Your task to perform on an android device: Clear the cart on ebay.com. Search for acer predator on ebay.com, select the first entry, add it to the cart, then select checkout. Image 0: 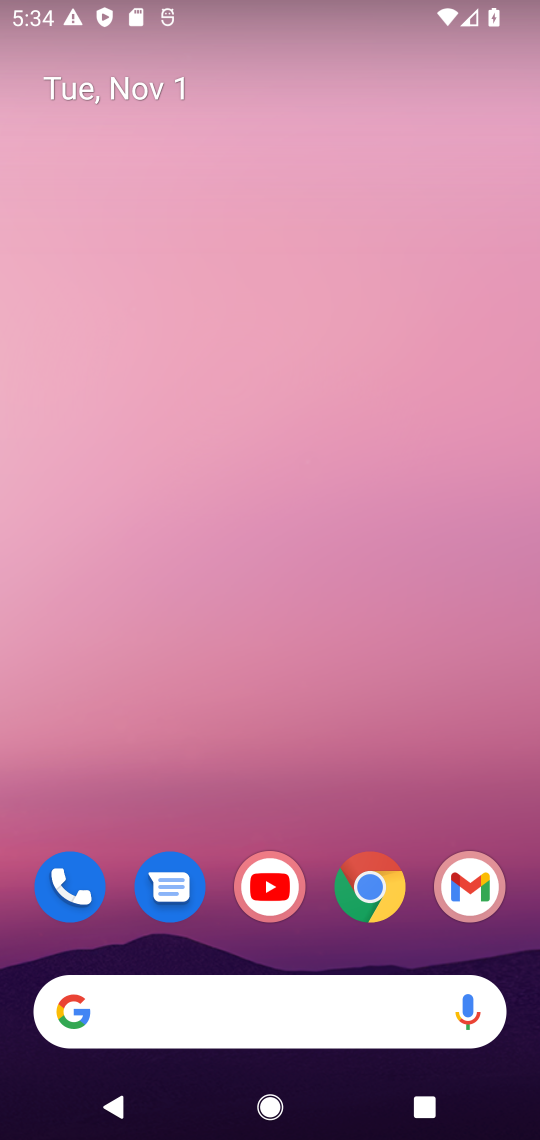
Step 0: press home button
Your task to perform on an android device: Clear the cart on ebay.com. Search for acer predator on ebay.com, select the first entry, add it to the cart, then select checkout. Image 1: 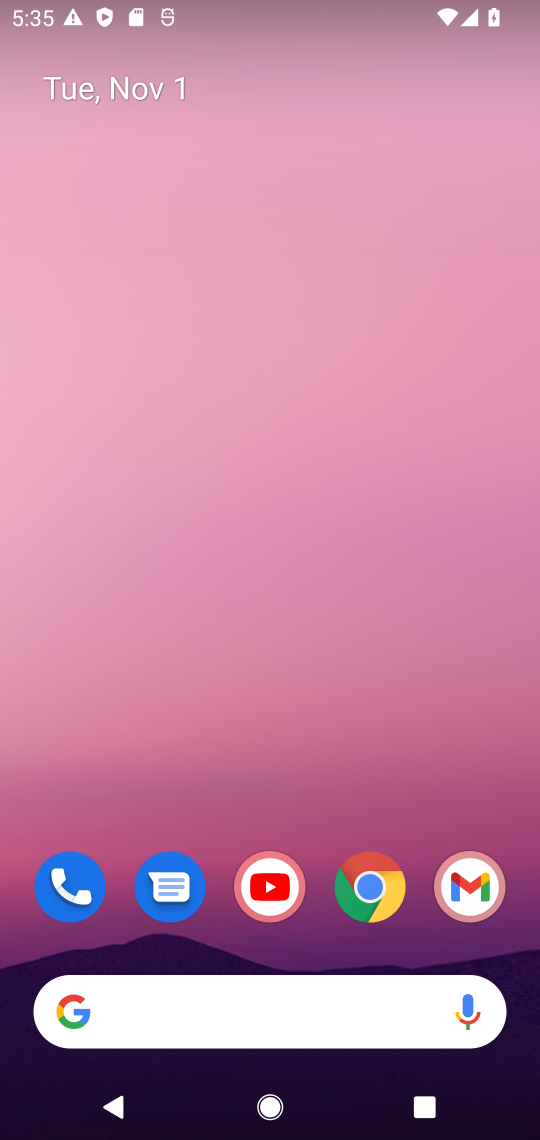
Step 1: drag from (312, 849) to (306, 54)
Your task to perform on an android device: Clear the cart on ebay.com. Search for acer predator on ebay.com, select the first entry, add it to the cart, then select checkout. Image 2: 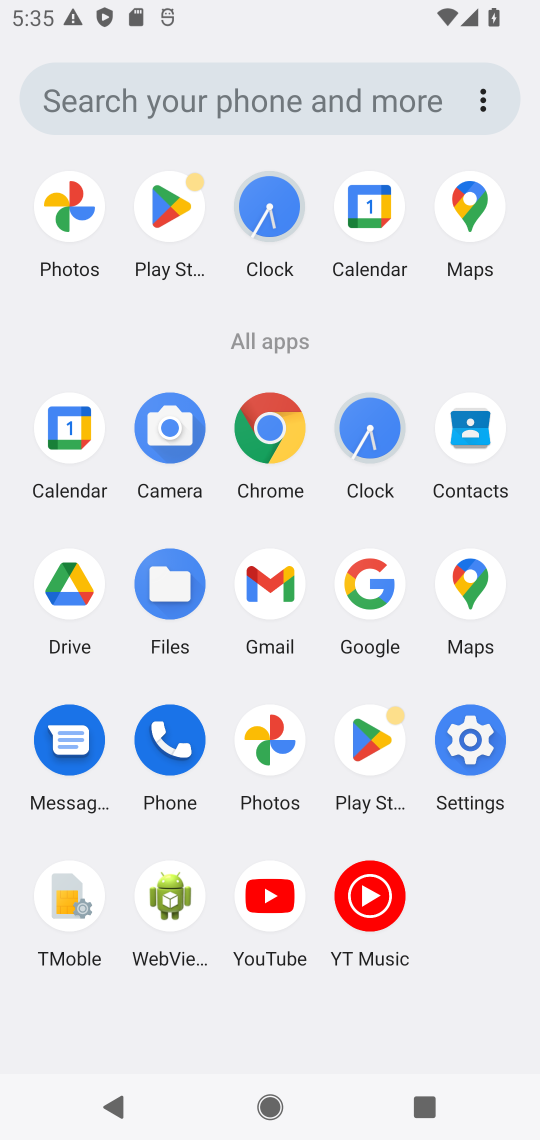
Step 2: click (266, 419)
Your task to perform on an android device: Clear the cart on ebay.com. Search for acer predator on ebay.com, select the first entry, add it to the cart, then select checkout. Image 3: 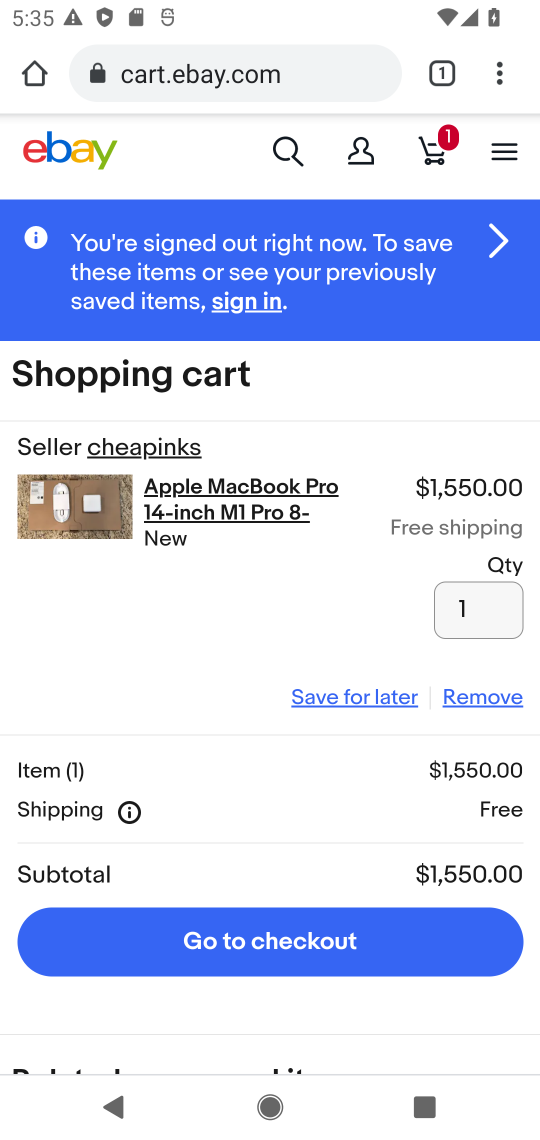
Step 3: click (279, 146)
Your task to perform on an android device: Clear the cart on ebay.com. Search for acer predator on ebay.com, select the first entry, add it to the cart, then select checkout. Image 4: 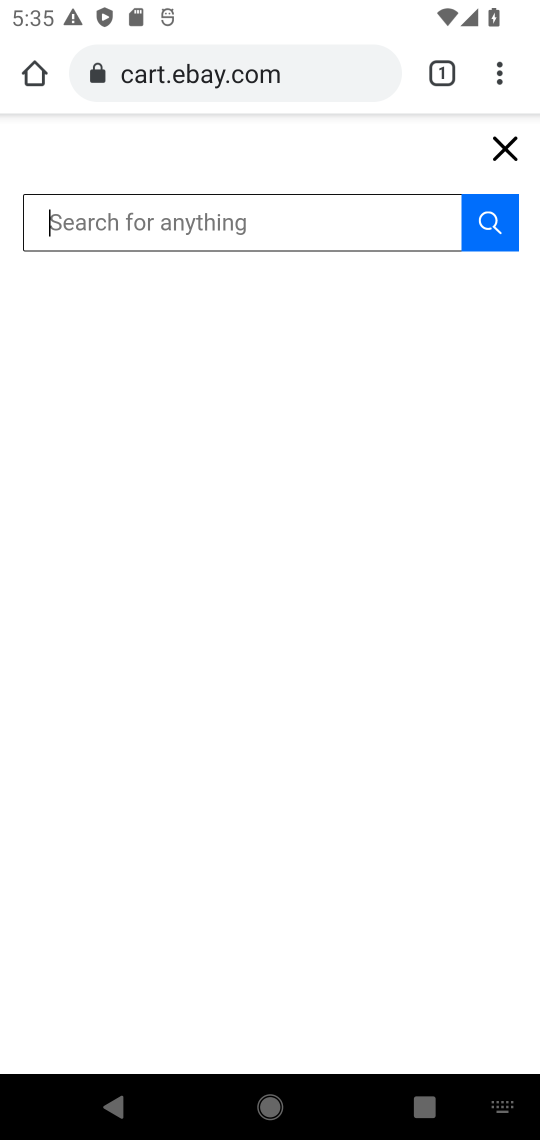
Step 4: type "acer predator"
Your task to perform on an android device: Clear the cart on ebay.com. Search for acer predator on ebay.com, select the first entry, add it to the cart, then select checkout. Image 5: 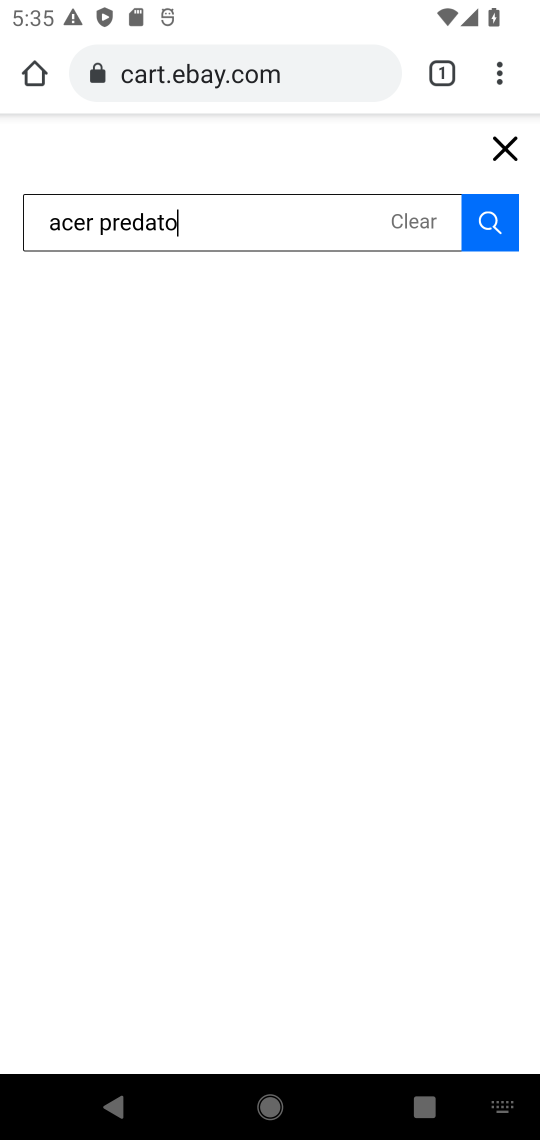
Step 5: type ""
Your task to perform on an android device: Clear the cart on ebay.com. Search for acer predator on ebay.com, select the first entry, add it to the cart, then select checkout. Image 6: 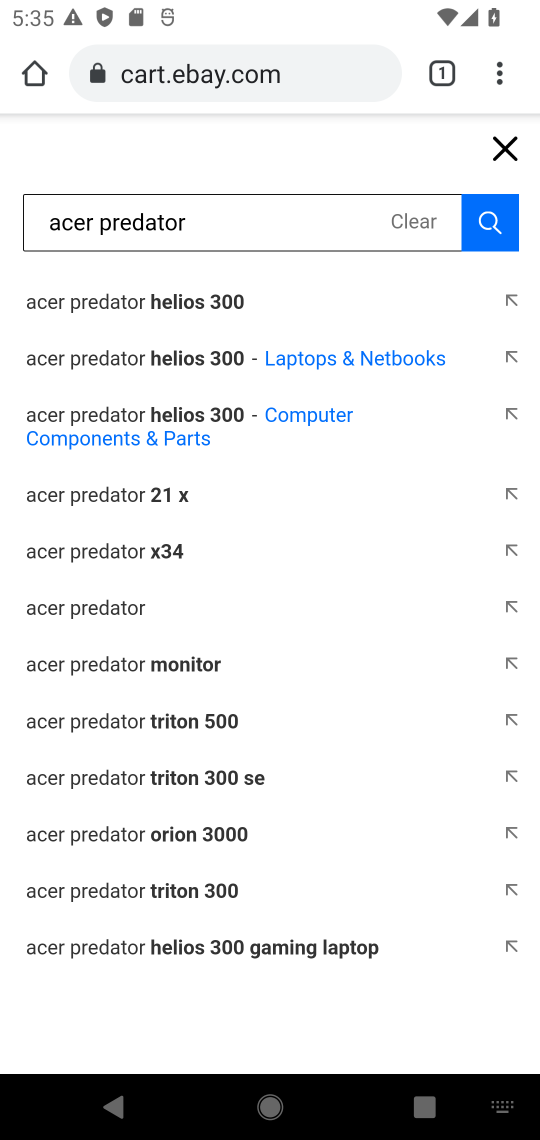
Step 6: click (241, 427)
Your task to perform on an android device: Clear the cart on ebay.com. Search for acer predator on ebay.com, select the first entry, add it to the cart, then select checkout. Image 7: 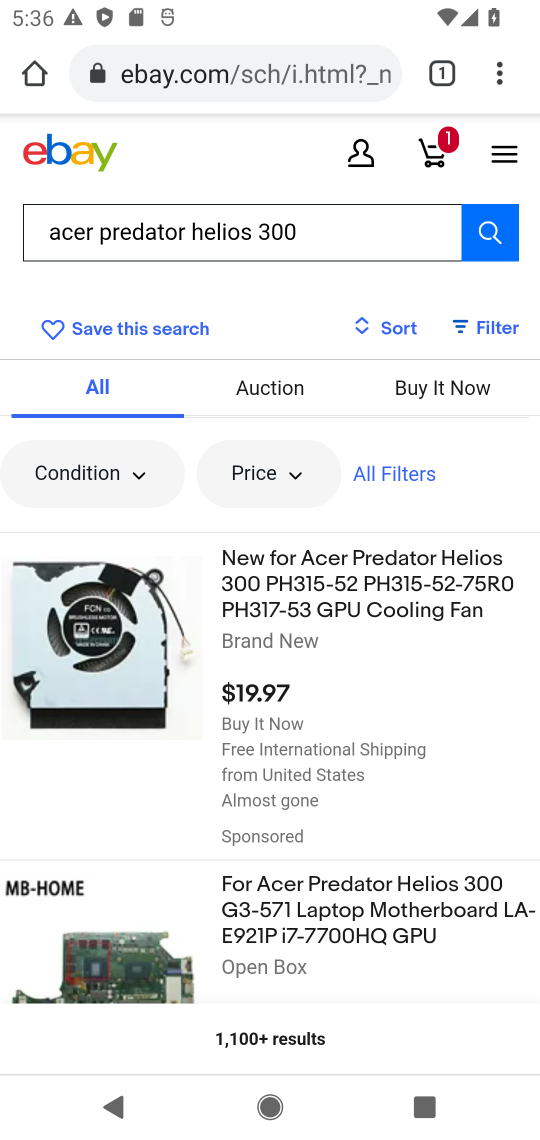
Step 7: click (326, 616)
Your task to perform on an android device: Clear the cart on ebay.com. Search for acer predator on ebay.com, select the first entry, add it to the cart, then select checkout. Image 8: 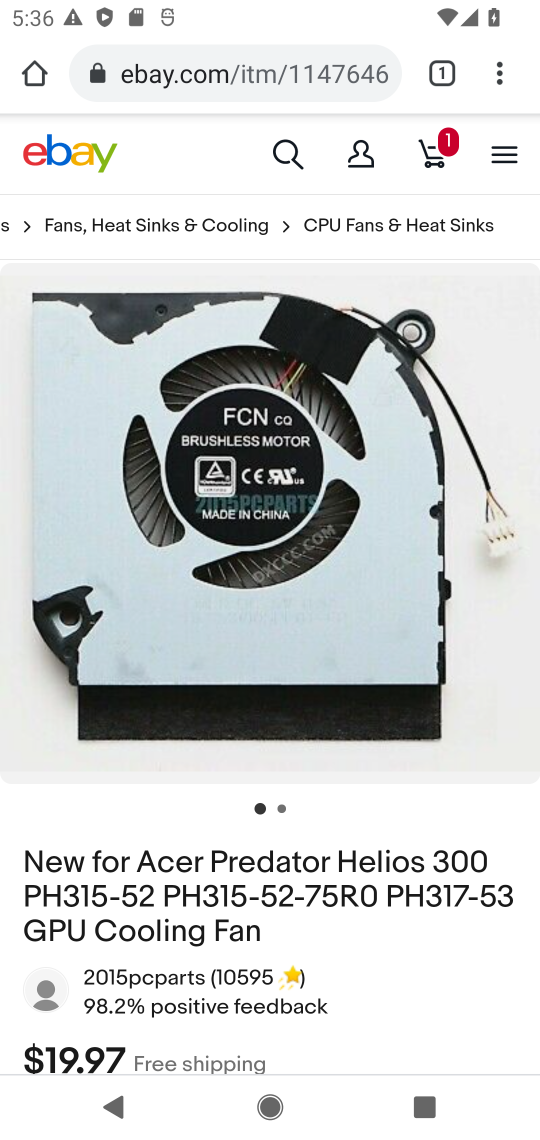
Step 8: drag from (336, 958) to (409, 412)
Your task to perform on an android device: Clear the cart on ebay.com. Search for acer predator on ebay.com, select the first entry, add it to the cart, then select checkout. Image 9: 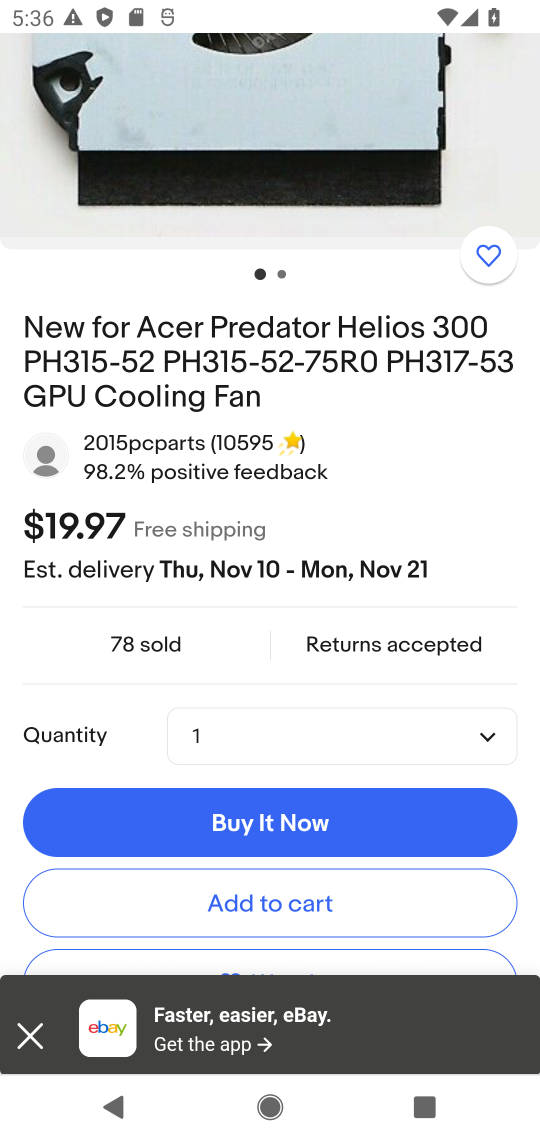
Step 9: click (281, 899)
Your task to perform on an android device: Clear the cart on ebay.com. Search for acer predator on ebay.com, select the first entry, add it to the cart, then select checkout. Image 10: 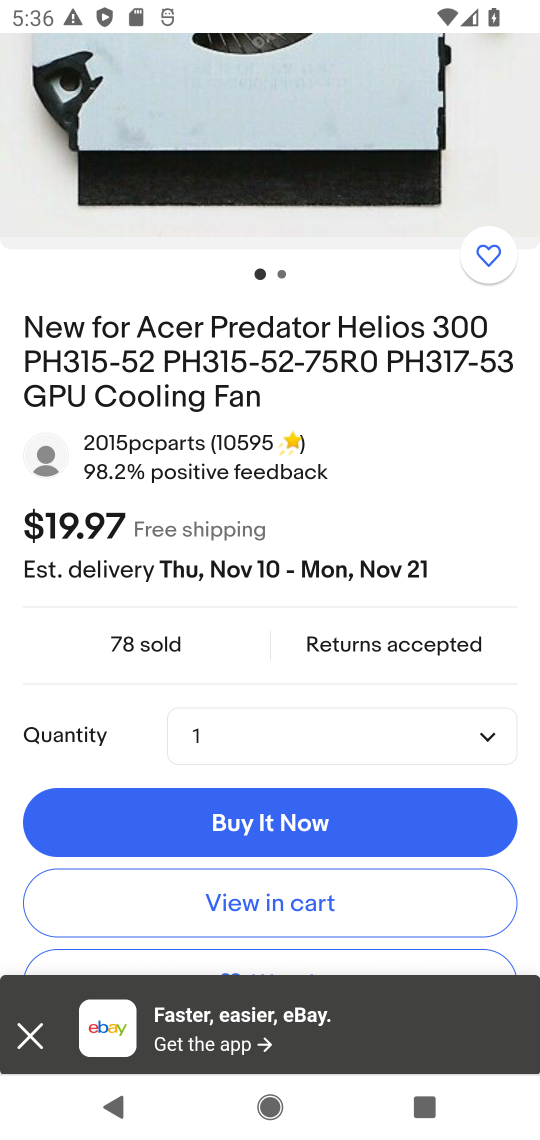
Step 10: click (273, 903)
Your task to perform on an android device: Clear the cart on ebay.com. Search for acer predator on ebay.com, select the first entry, add it to the cart, then select checkout. Image 11: 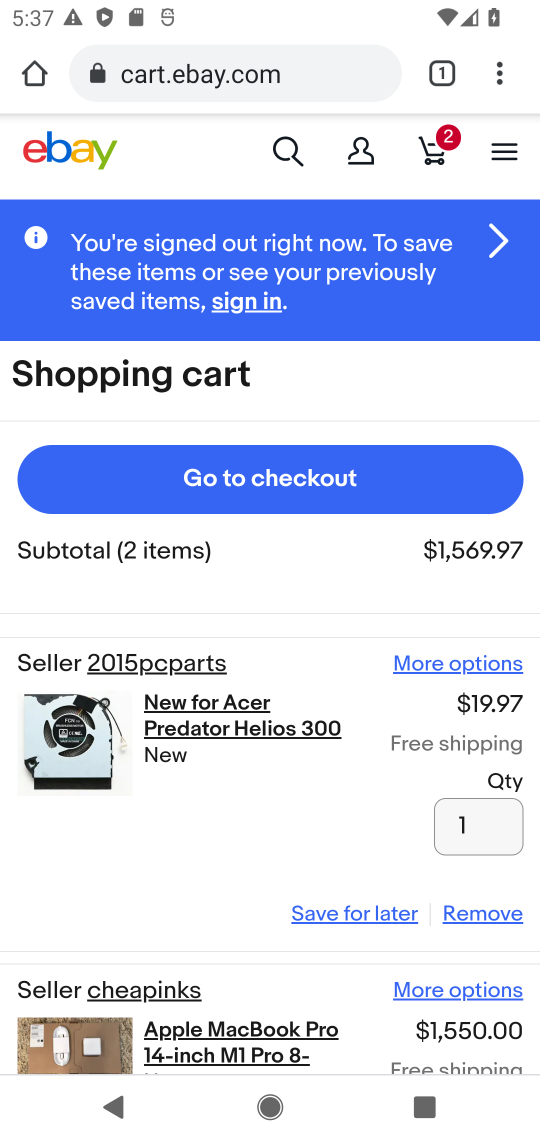
Step 11: click (271, 483)
Your task to perform on an android device: Clear the cart on ebay.com. Search for acer predator on ebay.com, select the first entry, add it to the cart, then select checkout. Image 12: 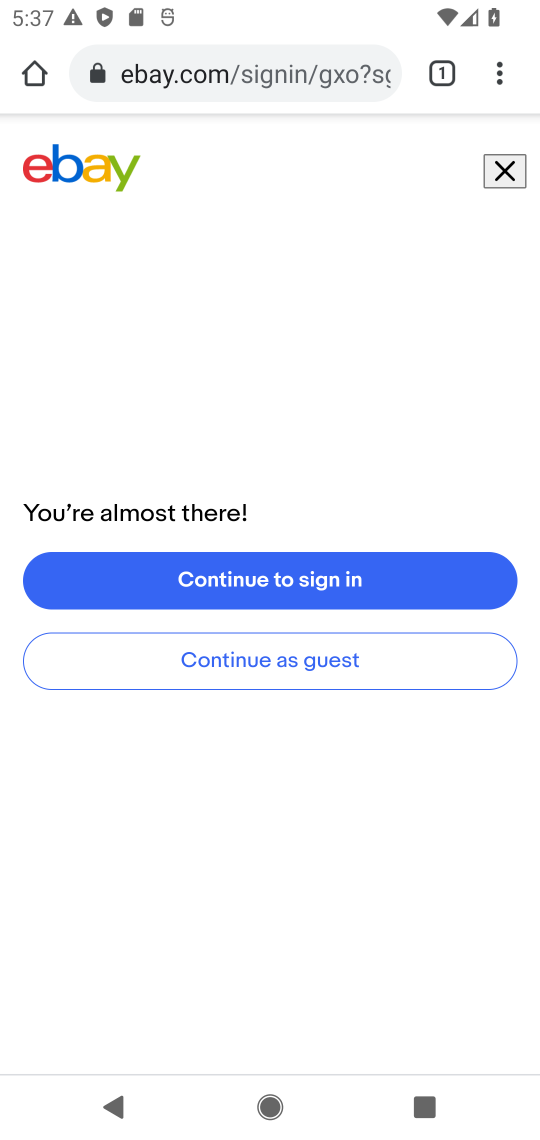
Step 12: task complete